Your task to perform on an android device: toggle notification dots Image 0: 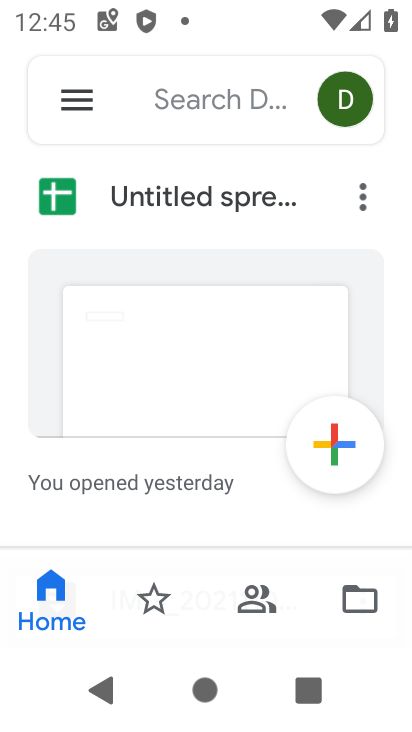
Step 0: press home button
Your task to perform on an android device: toggle notification dots Image 1: 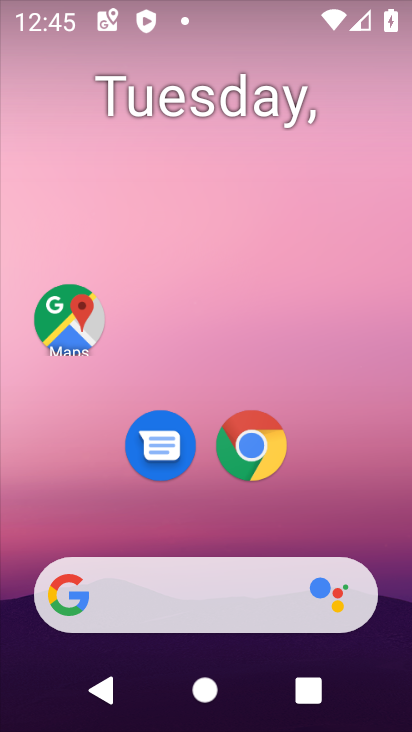
Step 1: drag from (362, 530) to (409, 31)
Your task to perform on an android device: toggle notification dots Image 2: 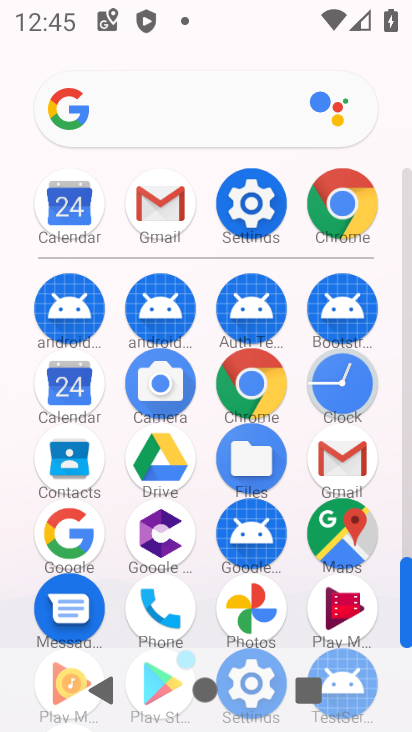
Step 2: click (255, 229)
Your task to perform on an android device: toggle notification dots Image 3: 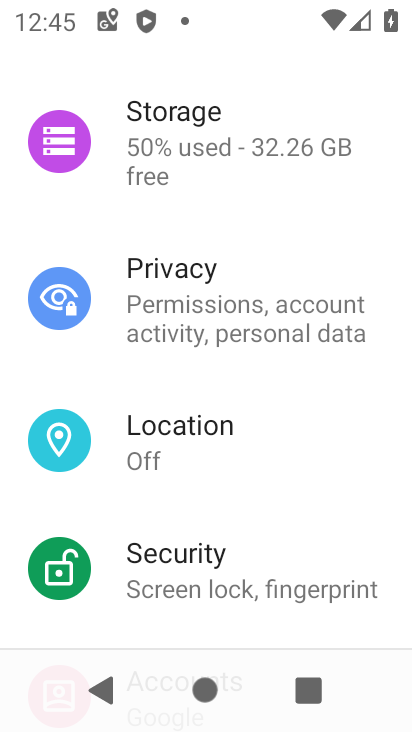
Step 3: drag from (255, 228) to (202, 555)
Your task to perform on an android device: toggle notification dots Image 4: 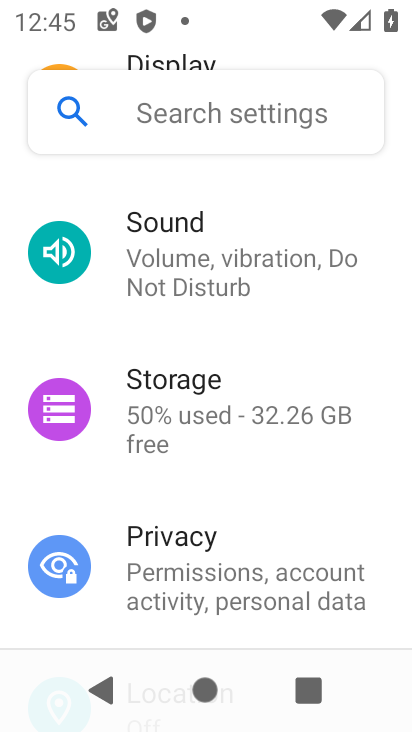
Step 4: drag from (248, 258) to (222, 541)
Your task to perform on an android device: toggle notification dots Image 5: 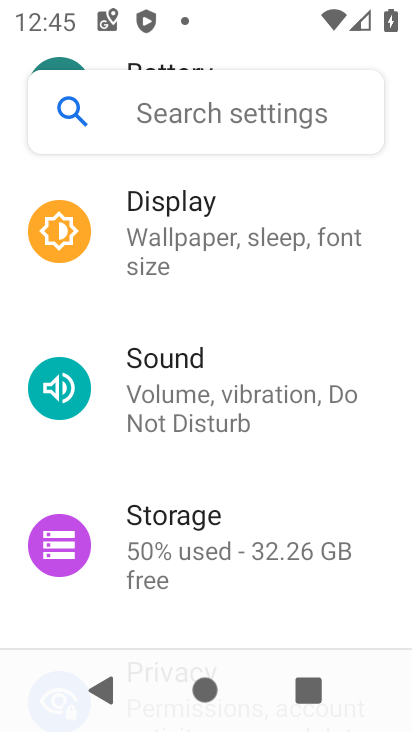
Step 5: drag from (272, 216) to (232, 606)
Your task to perform on an android device: toggle notification dots Image 6: 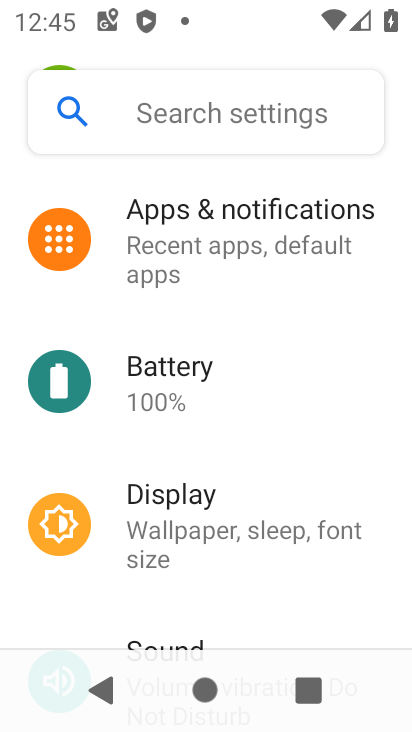
Step 6: click (208, 248)
Your task to perform on an android device: toggle notification dots Image 7: 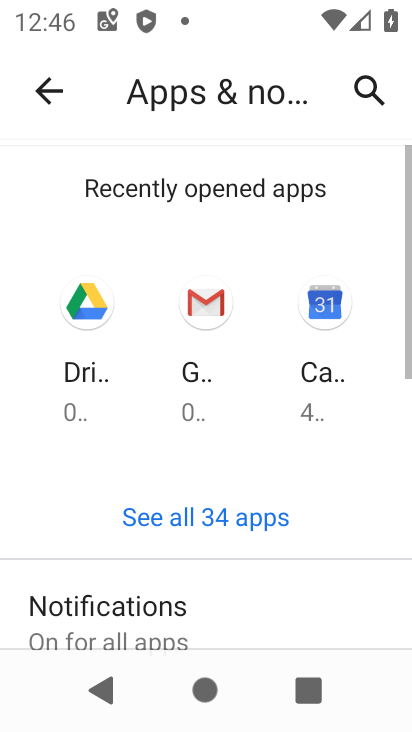
Step 7: drag from (183, 579) to (239, 187)
Your task to perform on an android device: toggle notification dots Image 8: 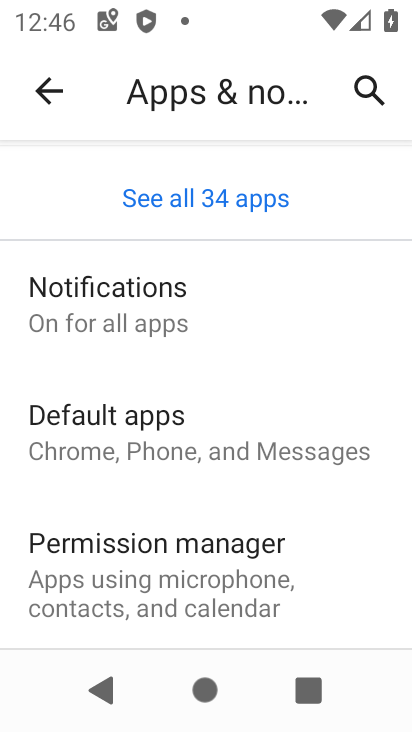
Step 8: click (155, 330)
Your task to perform on an android device: toggle notification dots Image 9: 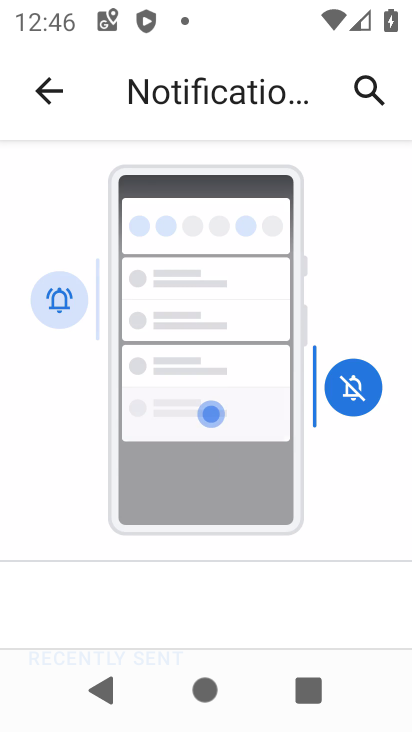
Step 9: drag from (154, 527) to (178, 133)
Your task to perform on an android device: toggle notification dots Image 10: 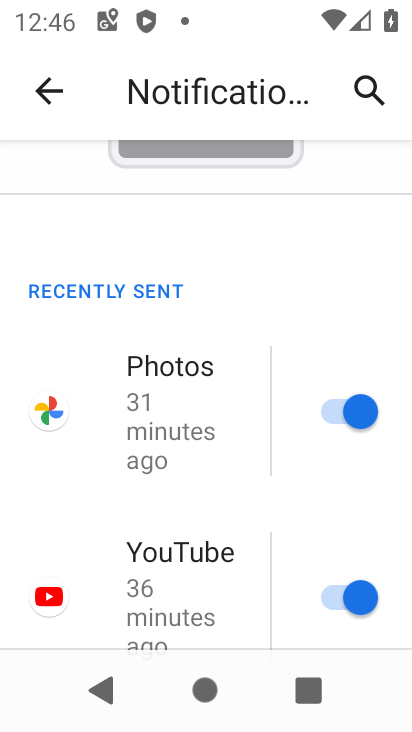
Step 10: drag from (177, 571) to (189, 264)
Your task to perform on an android device: toggle notification dots Image 11: 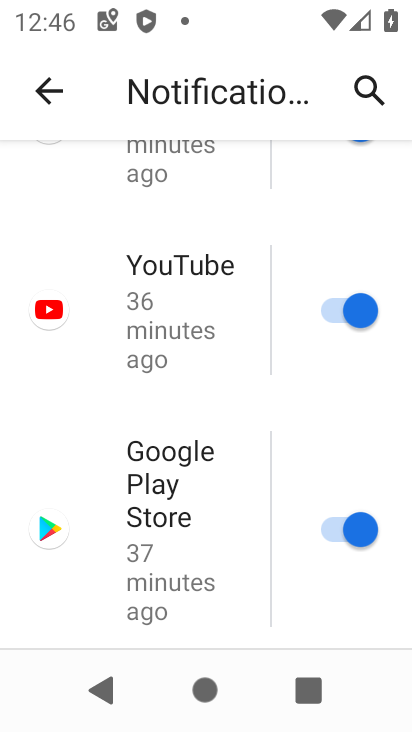
Step 11: drag from (168, 533) to (200, 236)
Your task to perform on an android device: toggle notification dots Image 12: 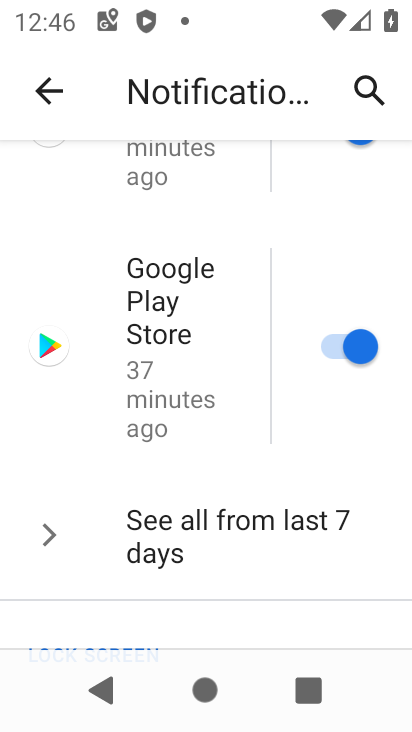
Step 12: drag from (208, 444) to (212, 185)
Your task to perform on an android device: toggle notification dots Image 13: 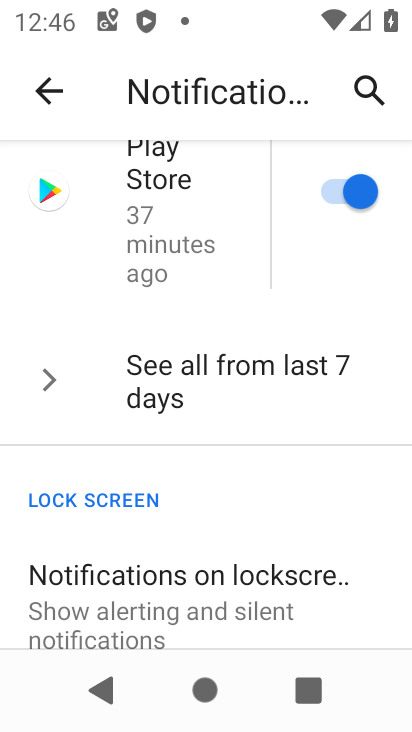
Step 13: drag from (205, 674) to (231, 195)
Your task to perform on an android device: toggle notification dots Image 14: 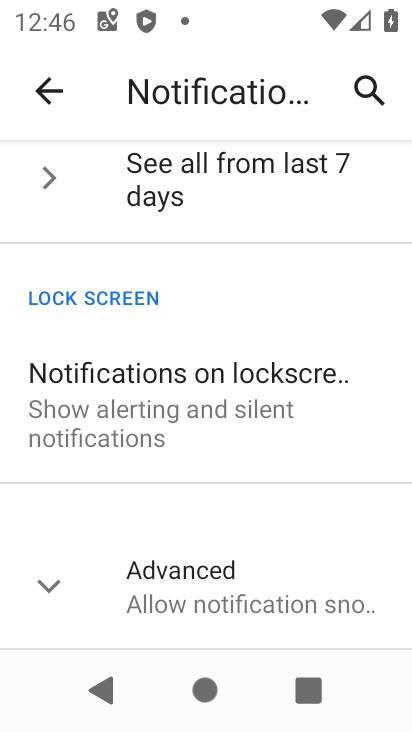
Step 14: click (172, 575)
Your task to perform on an android device: toggle notification dots Image 15: 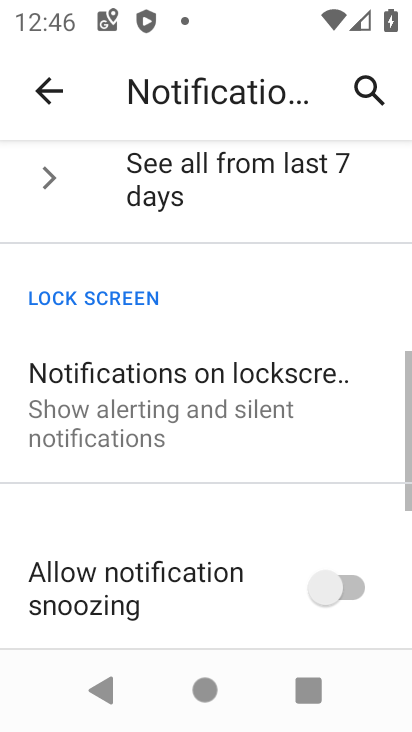
Step 15: drag from (171, 581) to (177, 217)
Your task to perform on an android device: toggle notification dots Image 16: 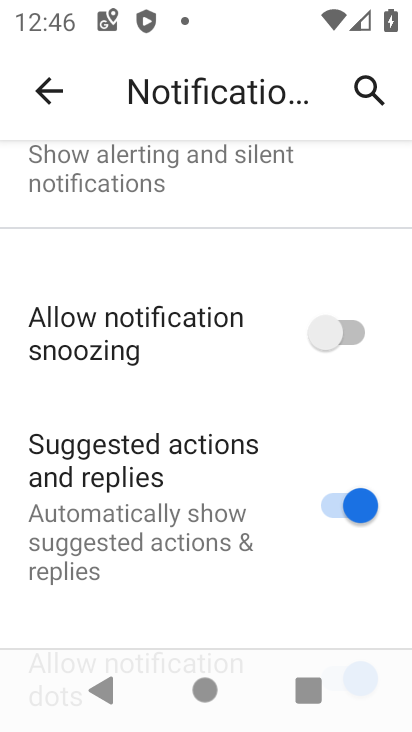
Step 16: drag from (151, 482) to (159, 192)
Your task to perform on an android device: toggle notification dots Image 17: 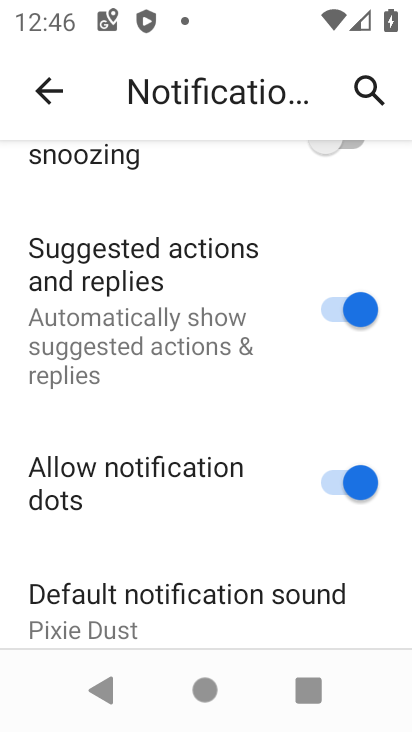
Step 17: drag from (143, 405) to (128, 184)
Your task to perform on an android device: toggle notification dots Image 18: 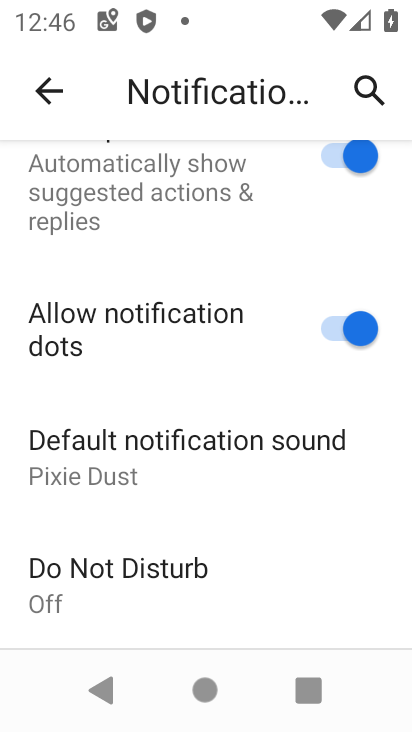
Step 18: click (328, 357)
Your task to perform on an android device: toggle notification dots Image 19: 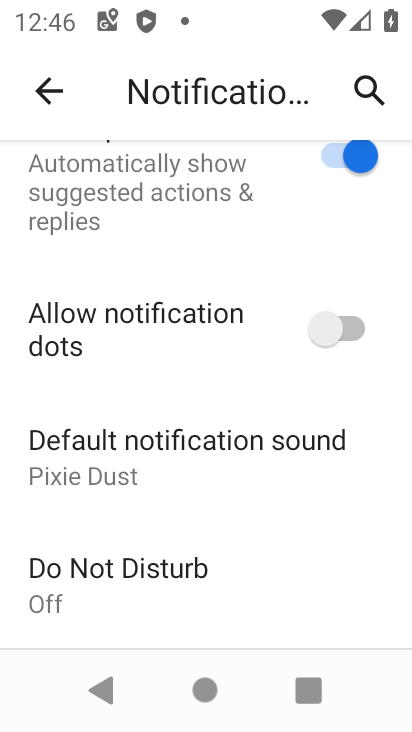
Step 19: task complete